Your task to perform on an android device: Search for seafood restaurants on Google Maps Image 0: 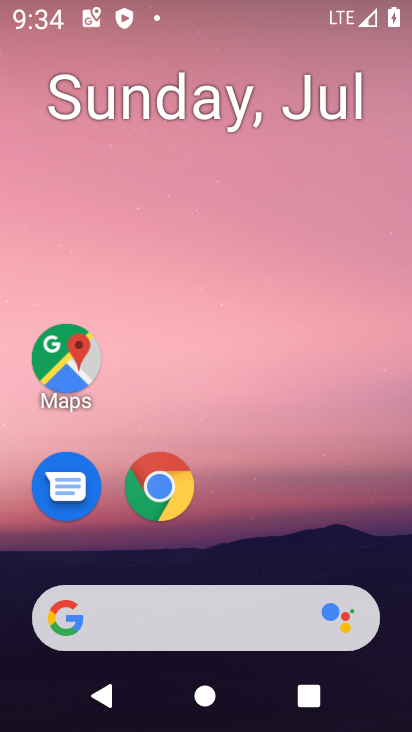
Step 0: drag from (355, 203) to (363, 101)
Your task to perform on an android device: Search for seafood restaurants on Google Maps Image 1: 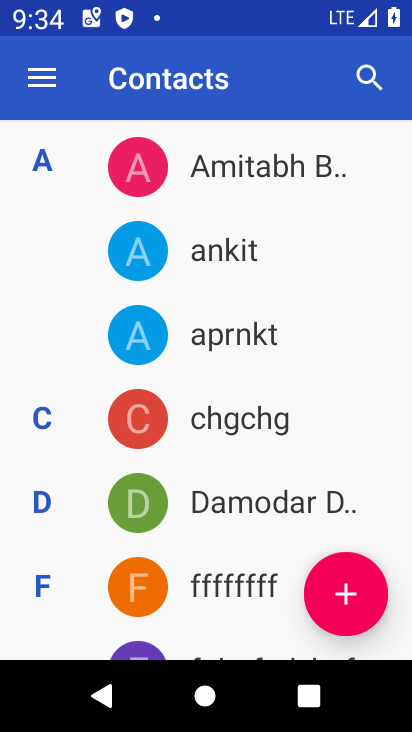
Step 1: press home button
Your task to perform on an android device: Search for seafood restaurants on Google Maps Image 2: 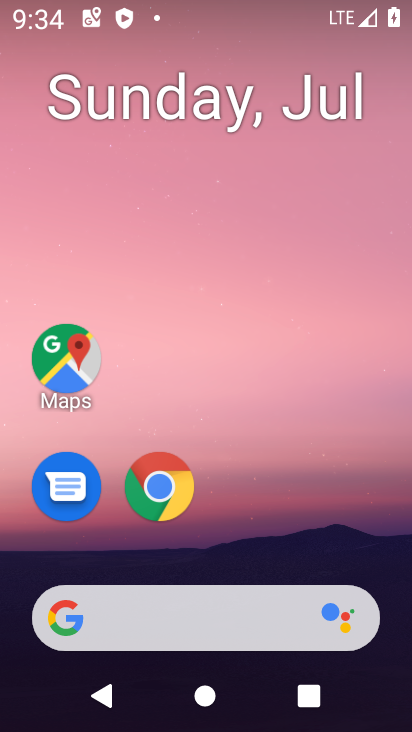
Step 2: drag from (338, 512) to (328, 61)
Your task to perform on an android device: Search for seafood restaurants on Google Maps Image 3: 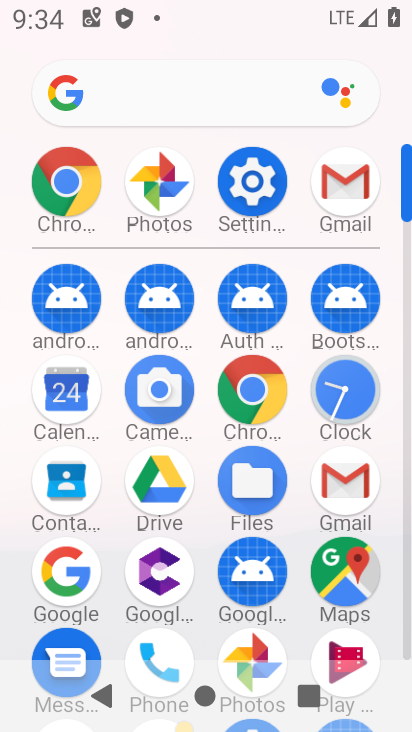
Step 3: click (353, 570)
Your task to perform on an android device: Search for seafood restaurants on Google Maps Image 4: 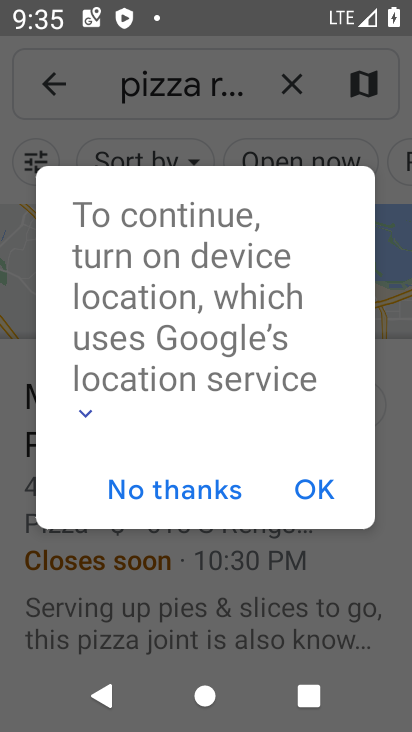
Step 4: click (202, 496)
Your task to perform on an android device: Search for seafood restaurants on Google Maps Image 5: 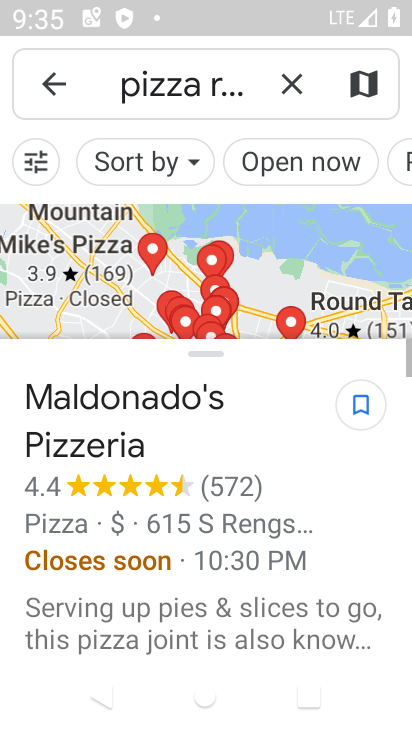
Step 5: press back button
Your task to perform on an android device: Search for seafood restaurants on Google Maps Image 6: 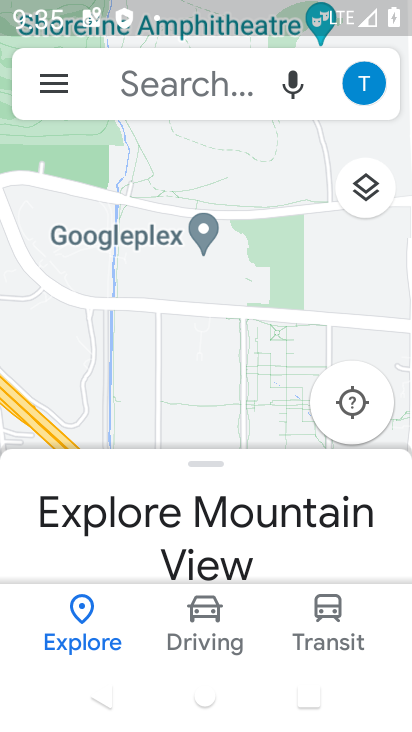
Step 6: click (163, 87)
Your task to perform on an android device: Search for seafood restaurants on Google Maps Image 7: 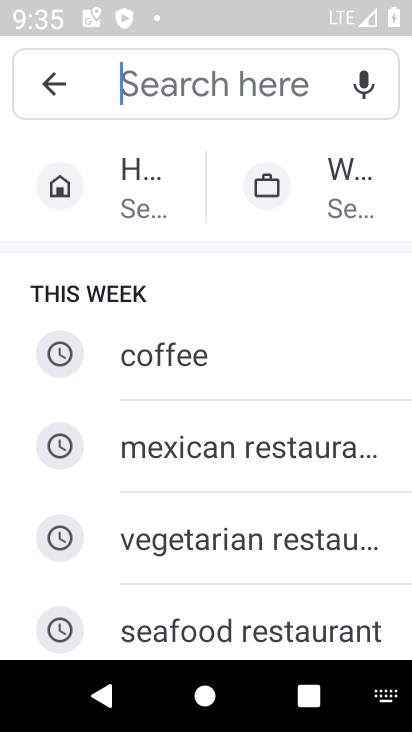
Step 7: type "seafood restaurants"
Your task to perform on an android device: Search for seafood restaurants on Google Maps Image 8: 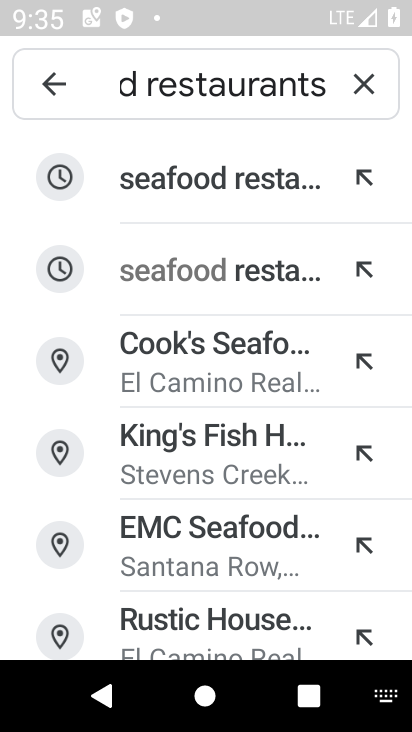
Step 8: click (297, 190)
Your task to perform on an android device: Search for seafood restaurants on Google Maps Image 9: 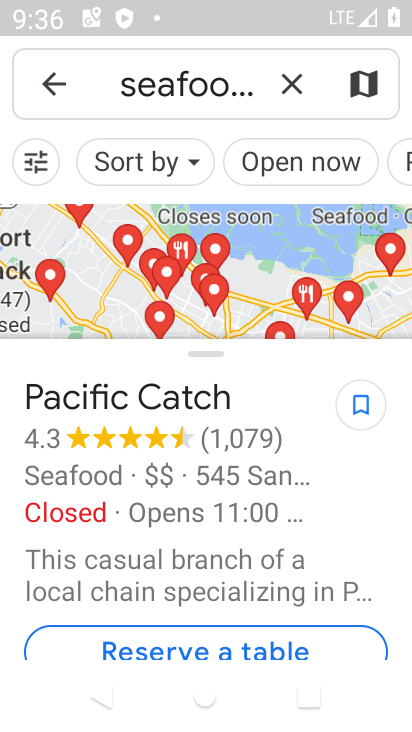
Step 9: task complete